Your task to perform on an android device: Go to internet settings Image 0: 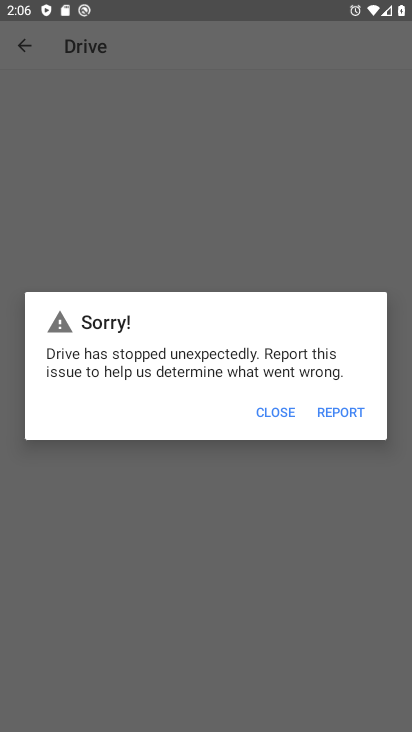
Step 0: press home button
Your task to perform on an android device: Go to internet settings Image 1: 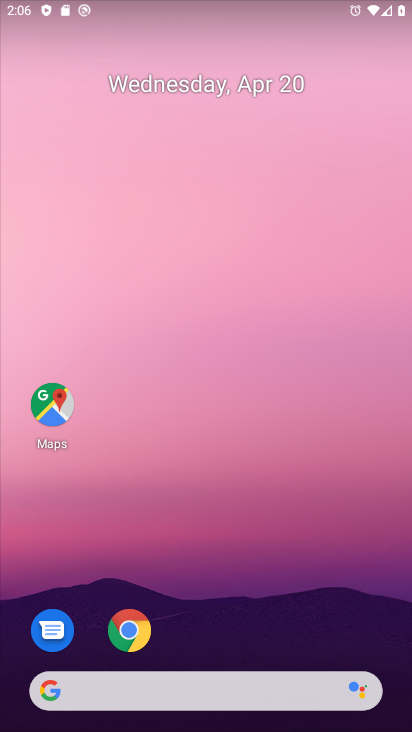
Step 1: drag from (179, 619) to (70, 157)
Your task to perform on an android device: Go to internet settings Image 2: 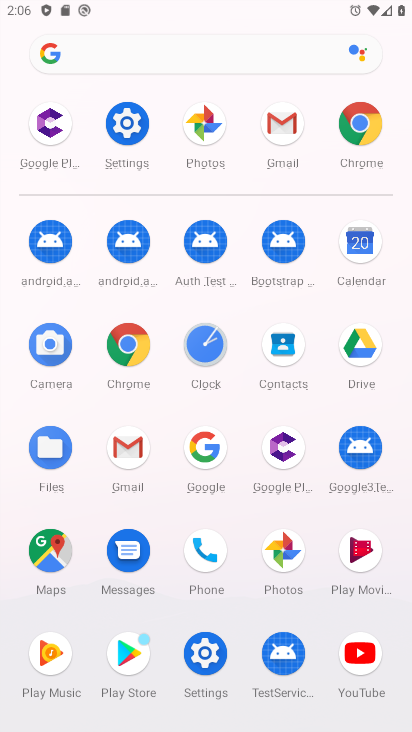
Step 2: click (127, 135)
Your task to perform on an android device: Go to internet settings Image 3: 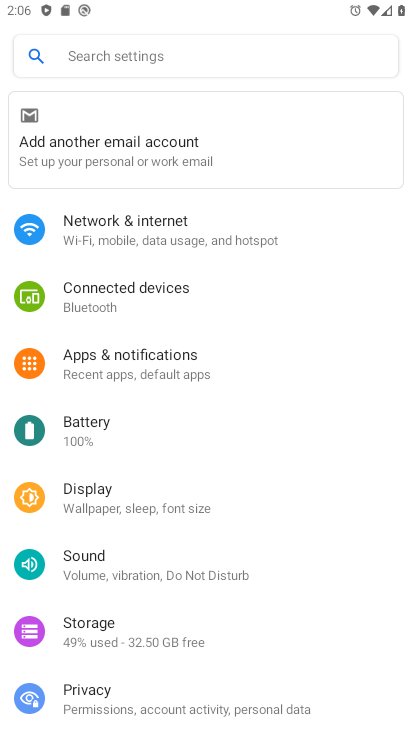
Step 3: click (104, 220)
Your task to perform on an android device: Go to internet settings Image 4: 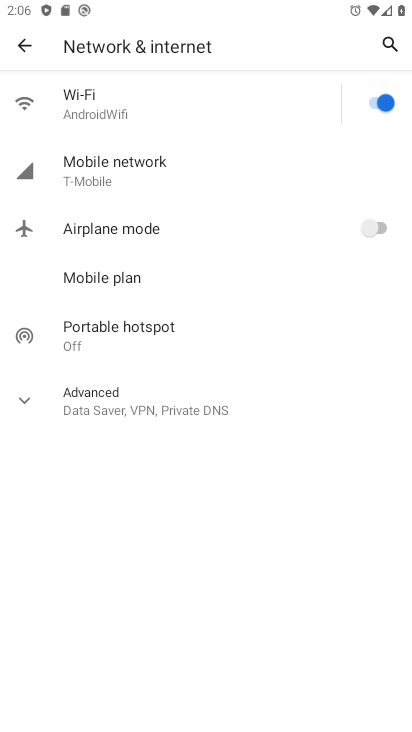
Step 4: task complete